Your task to perform on an android device: open wifi settings Image 0: 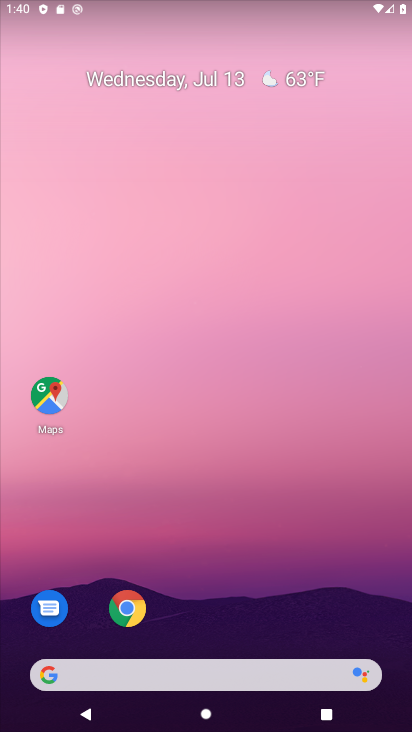
Step 0: drag from (377, 1) to (336, 444)
Your task to perform on an android device: open wifi settings Image 1: 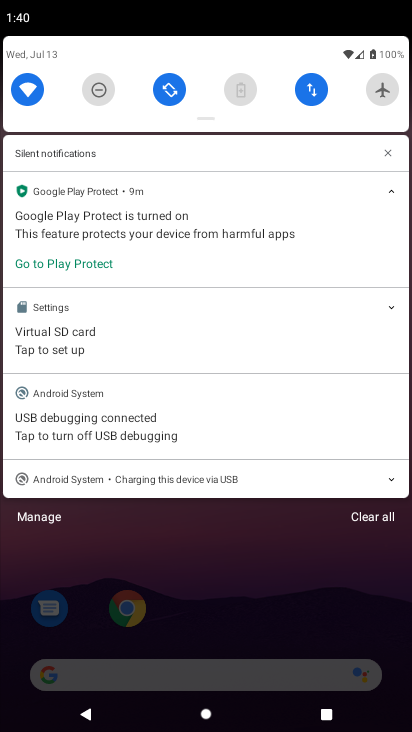
Step 1: click (27, 93)
Your task to perform on an android device: open wifi settings Image 2: 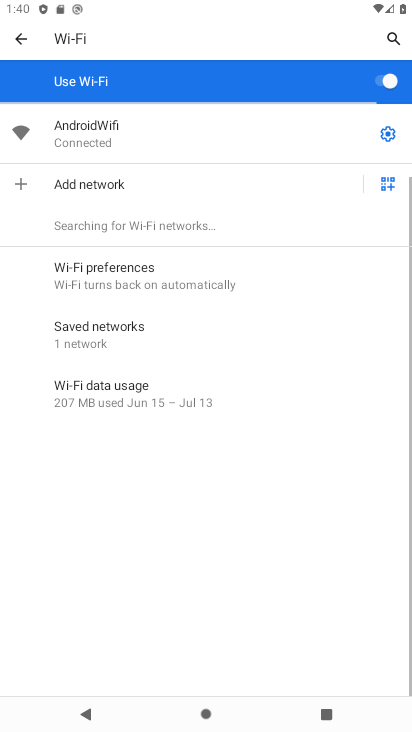
Step 2: task complete